Your task to perform on an android device: change the upload size in google photos Image 0: 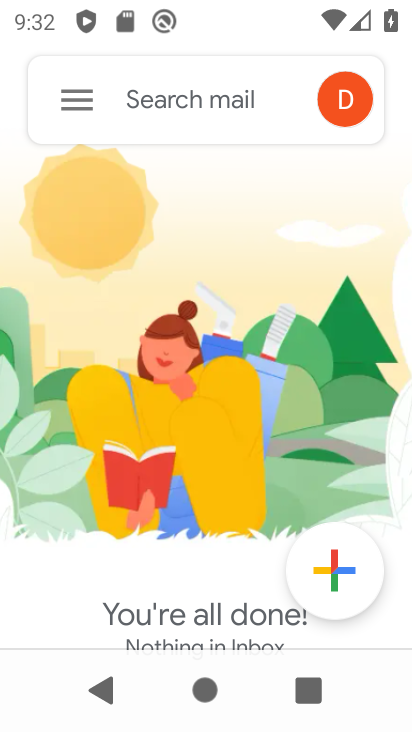
Step 0: press home button
Your task to perform on an android device: change the upload size in google photos Image 1: 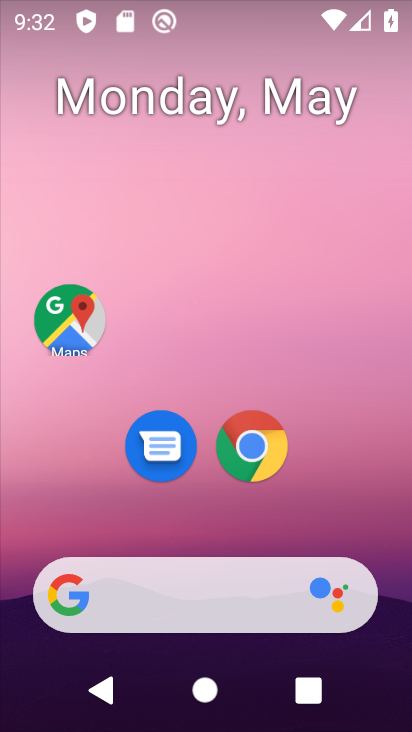
Step 1: drag from (105, 521) to (208, 14)
Your task to perform on an android device: change the upload size in google photos Image 2: 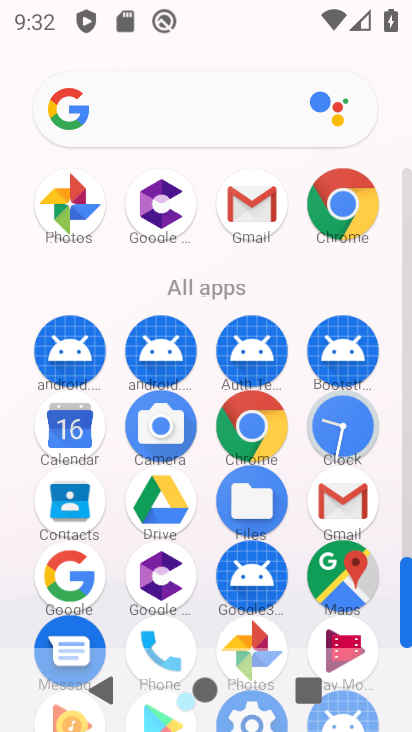
Step 2: click (249, 655)
Your task to perform on an android device: change the upload size in google photos Image 3: 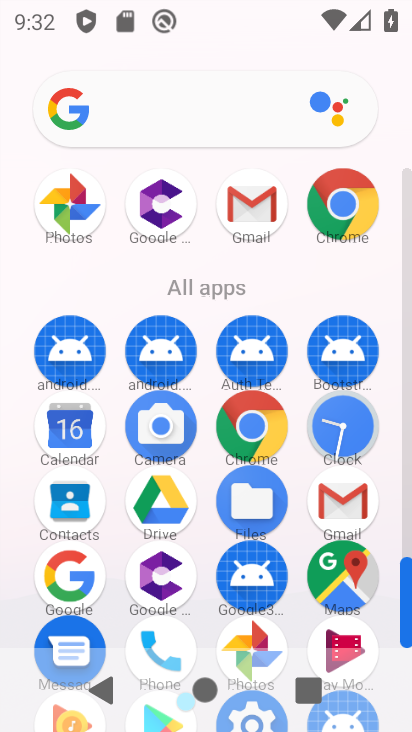
Step 3: click (253, 627)
Your task to perform on an android device: change the upload size in google photos Image 4: 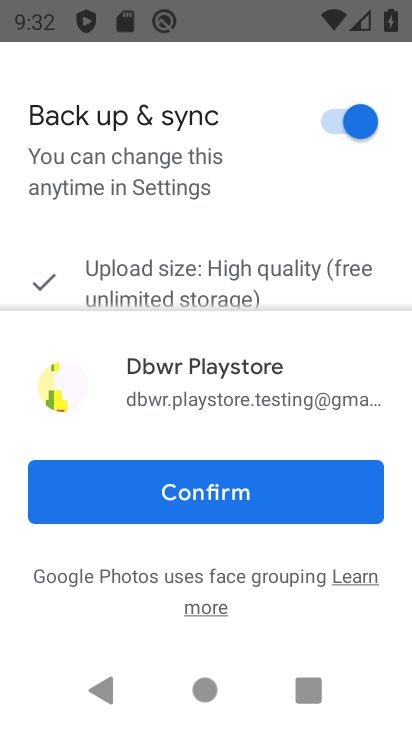
Step 4: click (239, 507)
Your task to perform on an android device: change the upload size in google photos Image 5: 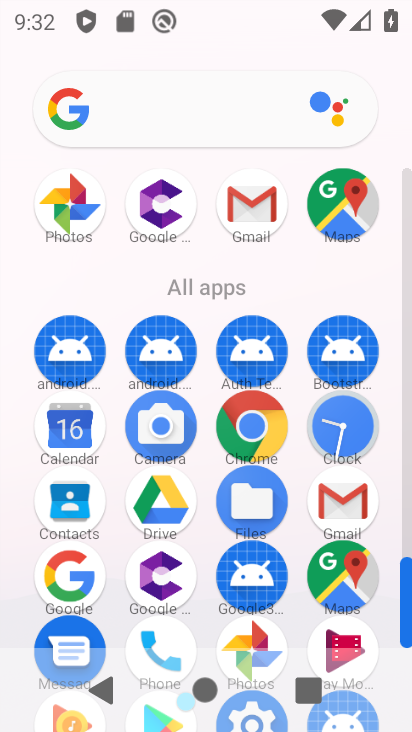
Step 5: click (248, 655)
Your task to perform on an android device: change the upload size in google photos Image 6: 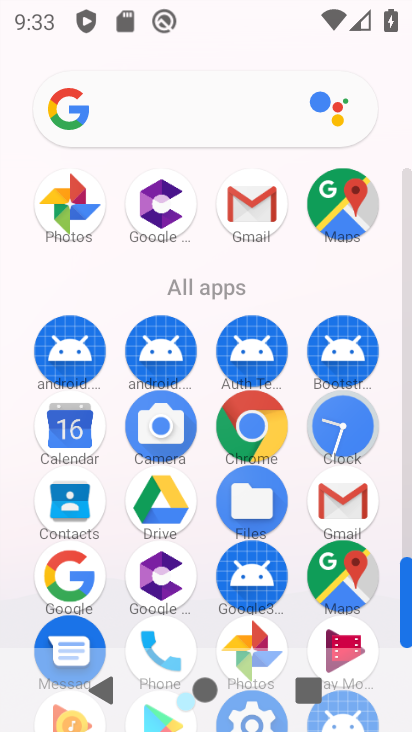
Step 6: click (252, 649)
Your task to perform on an android device: change the upload size in google photos Image 7: 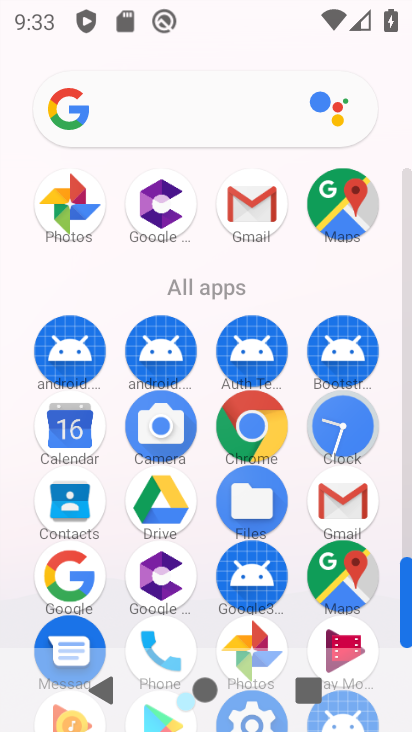
Step 7: click (253, 642)
Your task to perform on an android device: change the upload size in google photos Image 8: 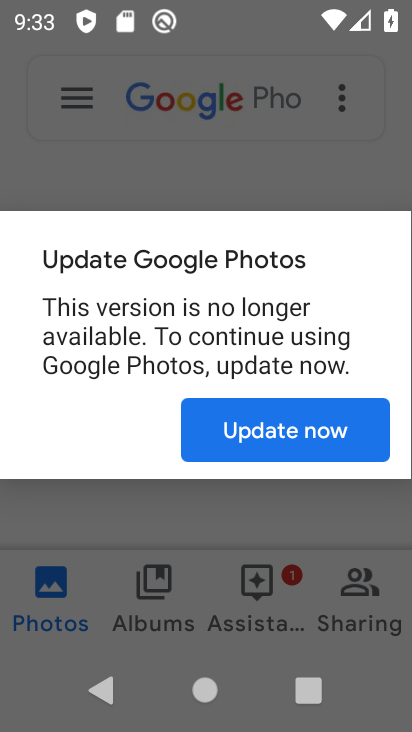
Step 8: click (296, 448)
Your task to perform on an android device: change the upload size in google photos Image 9: 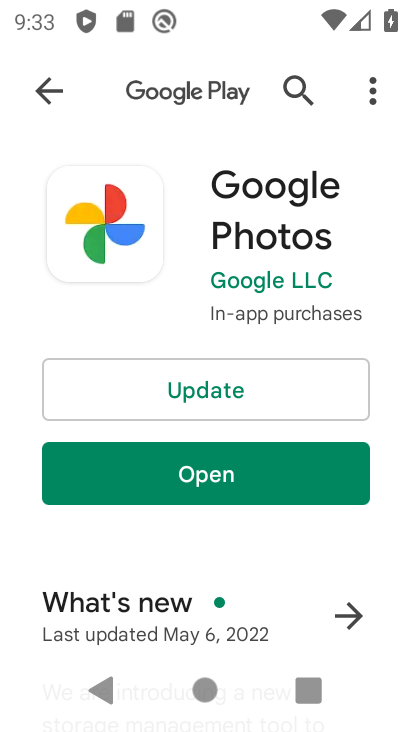
Step 9: click (235, 409)
Your task to perform on an android device: change the upload size in google photos Image 10: 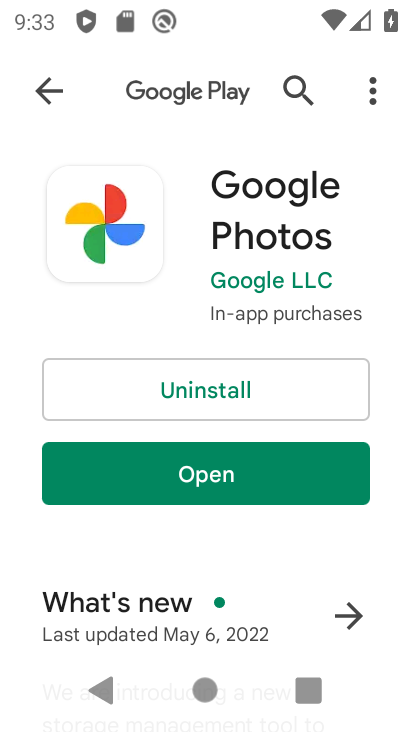
Step 10: click (243, 469)
Your task to perform on an android device: change the upload size in google photos Image 11: 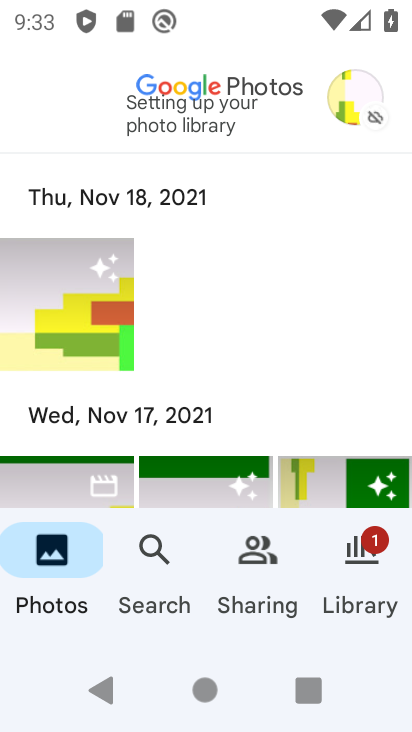
Step 11: click (361, 99)
Your task to perform on an android device: change the upload size in google photos Image 12: 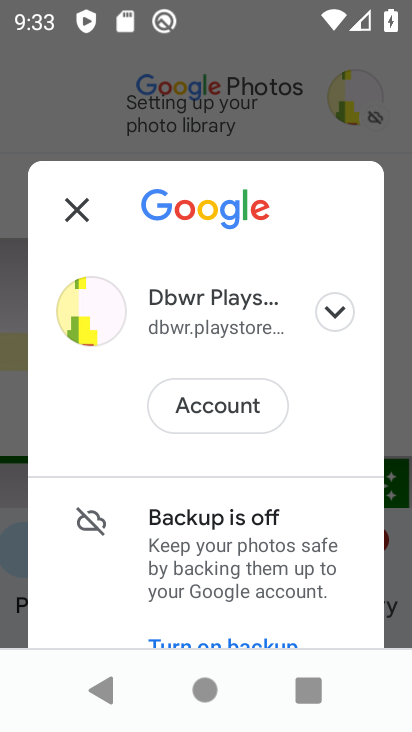
Step 12: drag from (225, 592) to (307, 183)
Your task to perform on an android device: change the upload size in google photos Image 13: 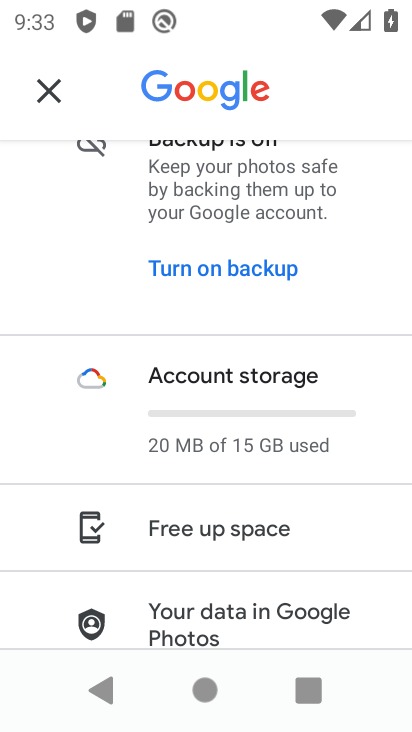
Step 13: drag from (247, 597) to (311, 203)
Your task to perform on an android device: change the upload size in google photos Image 14: 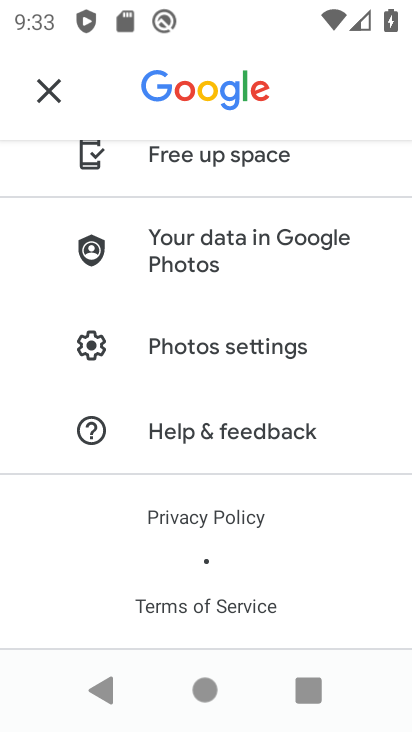
Step 14: click (273, 342)
Your task to perform on an android device: change the upload size in google photos Image 15: 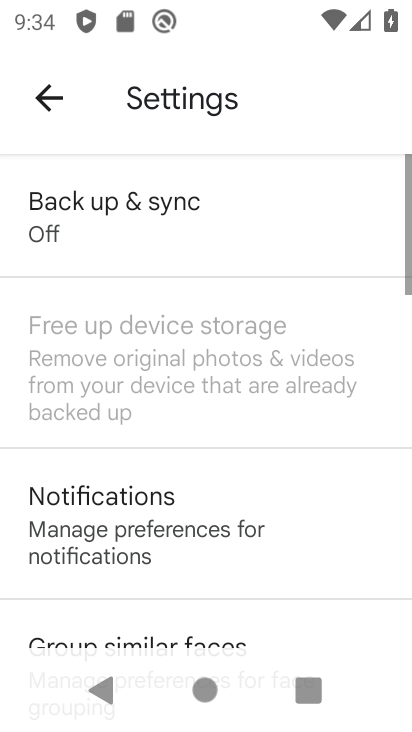
Step 15: drag from (187, 616) to (214, 581)
Your task to perform on an android device: change the upload size in google photos Image 16: 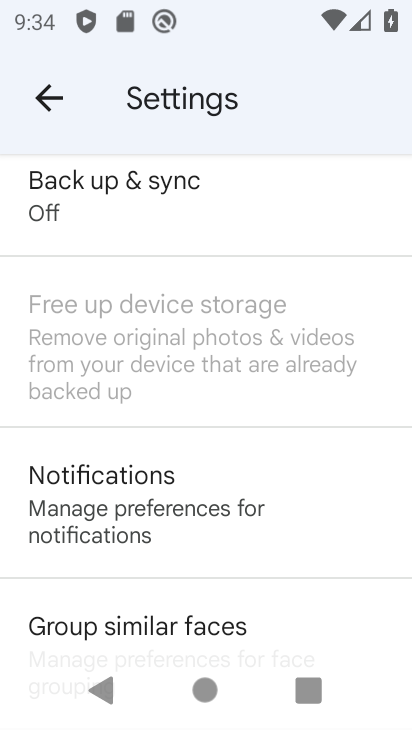
Step 16: click (235, 220)
Your task to perform on an android device: change the upload size in google photos Image 17: 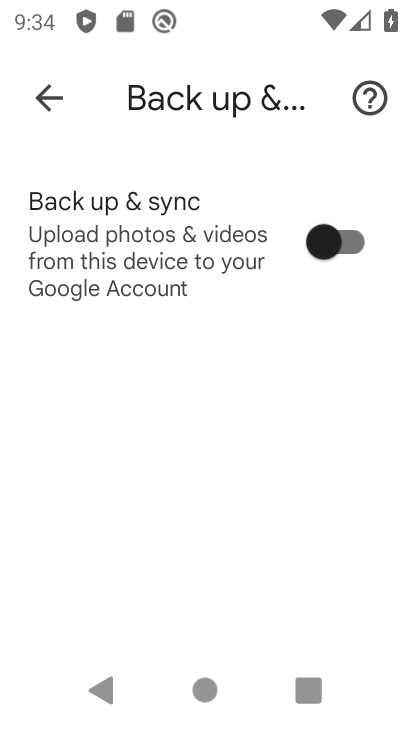
Step 17: click (357, 244)
Your task to perform on an android device: change the upload size in google photos Image 18: 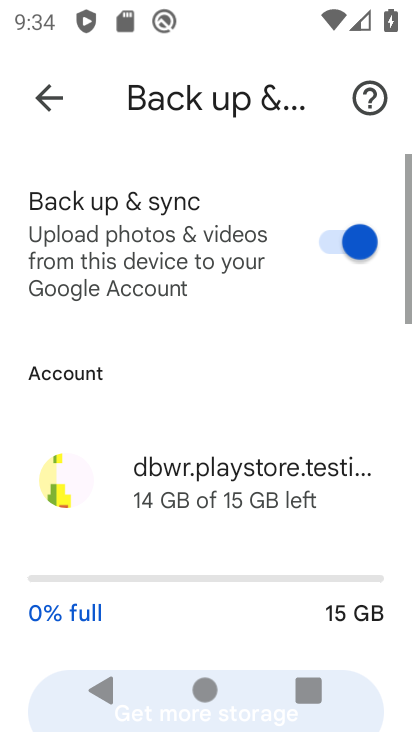
Step 18: drag from (236, 541) to (335, 90)
Your task to perform on an android device: change the upload size in google photos Image 19: 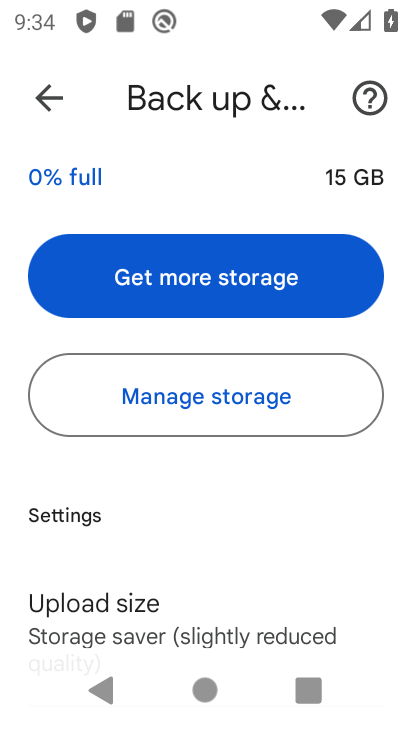
Step 19: drag from (213, 550) to (267, 308)
Your task to perform on an android device: change the upload size in google photos Image 20: 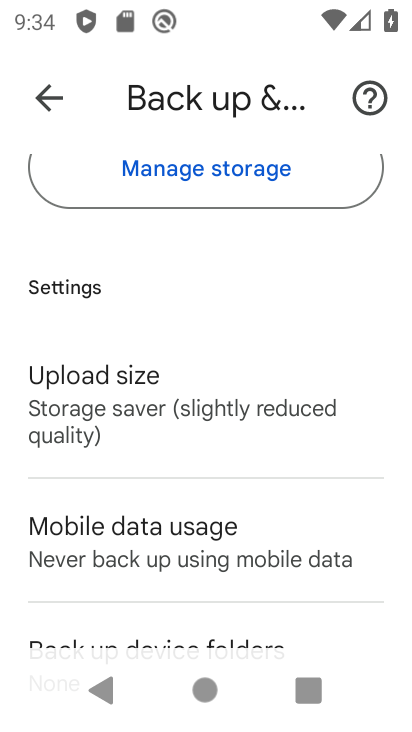
Step 20: click (189, 405)
Your task to perform on an android device: change the upload size in google photos Image 21: 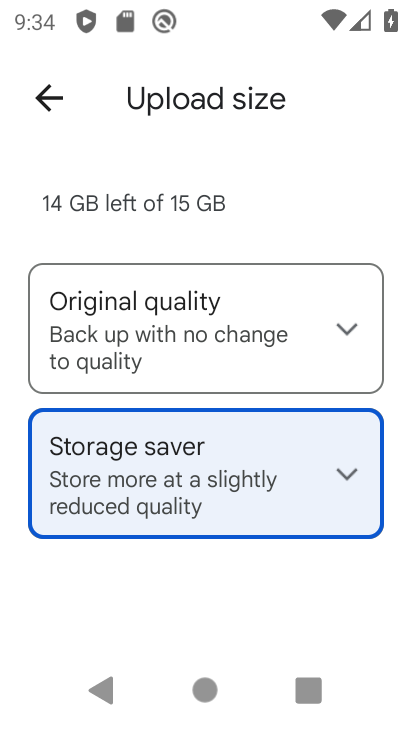
Step 21: click (205, 347)
Your task to perform on an android device: change the upload size in google photos Image 22: 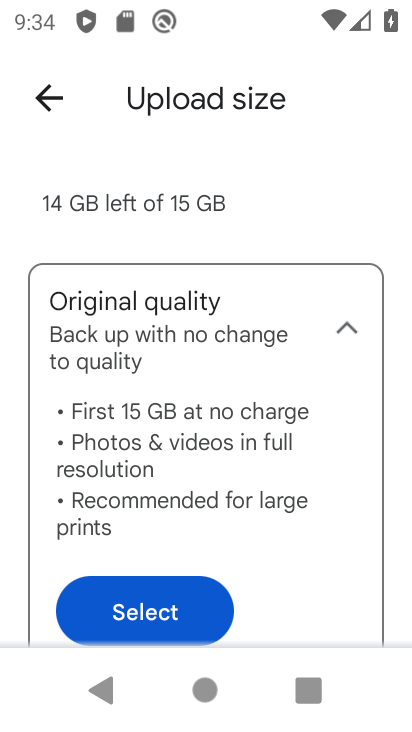
Step 22: click (181, 590)
Your task to perform on an android device: change the upload size in google photos Image 23: 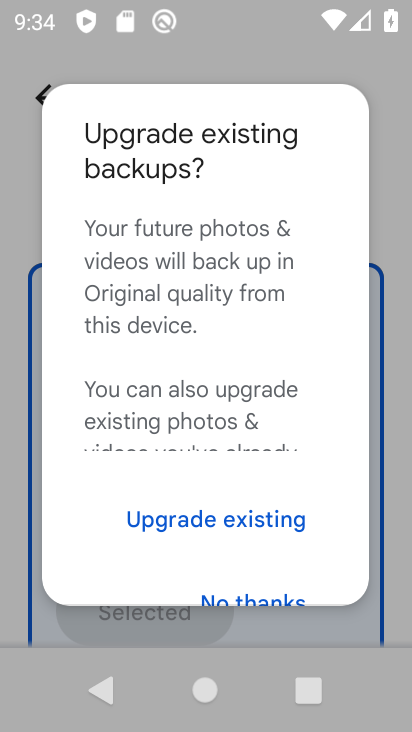
Step 23: click (234, 515)
Your task to perform on an android device: change the upload size in google photos Image 24: 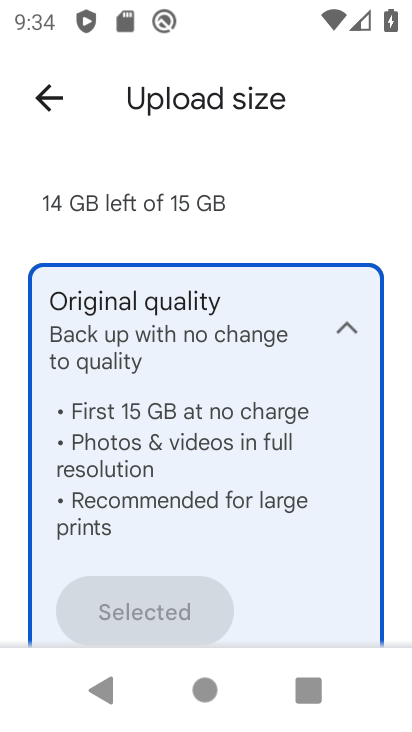
Step 24: task complete